Your task to perform on an android device: open chrome privacy settings Image 0: 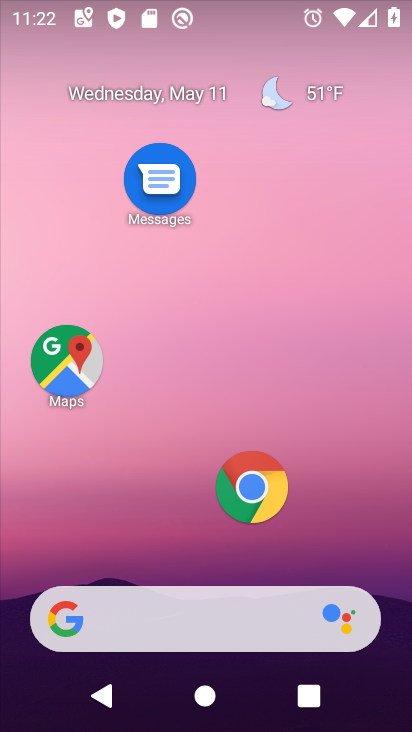
Step 0: click (248, 489)
Your task to perform on an android device: open chrome privacy settings Image 1: 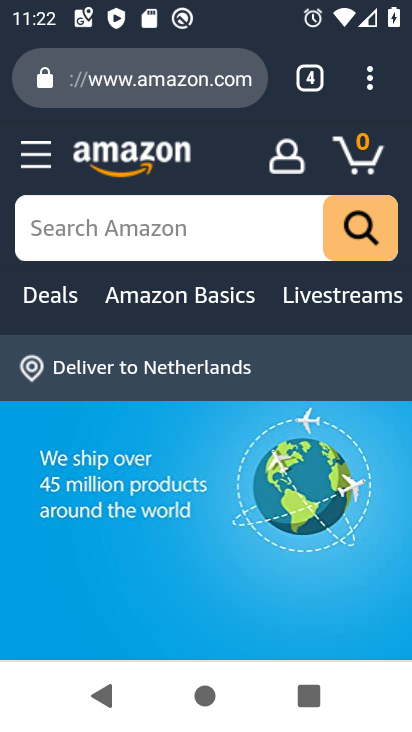
Step 1: drag from (362, 78) to (103, 551)
Your task to perform on an android device: open chrome privacy settings Image 2: 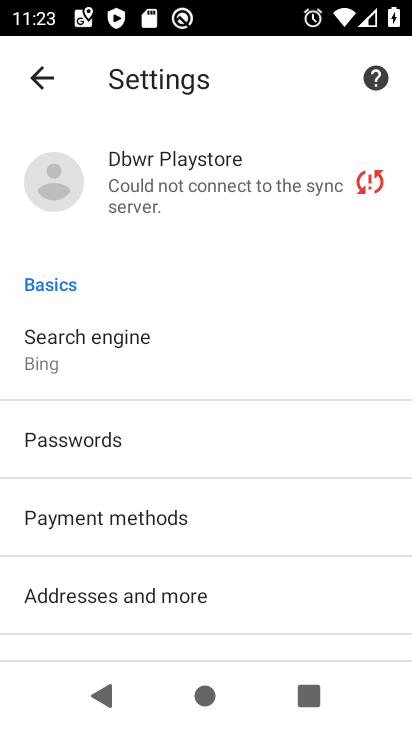
Step 2: drag from (139, 557) to (204, 269)
Your task to perform on an android device: open chrome privacy settings Image 3: 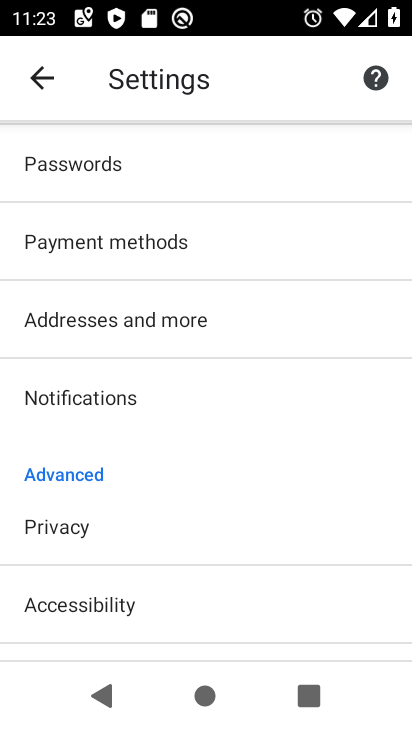
Step 3: click (132, 563)
Your task to perform on an android device: open chrome privacy settings Image 4: 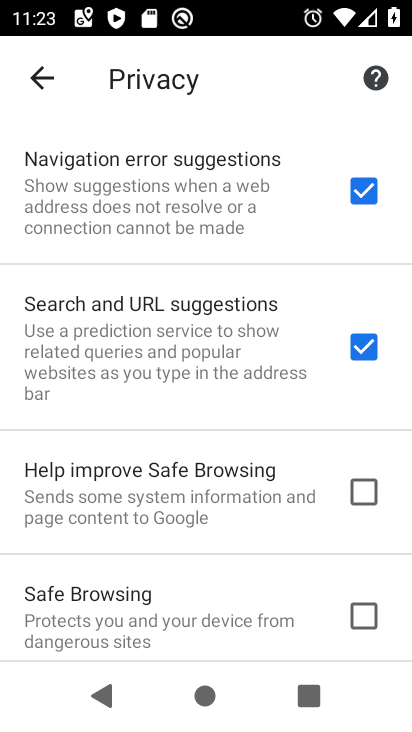
Step 4: task complete